Your task to perform on an android device: Search for Mexican restaurants on Maps Image 0: 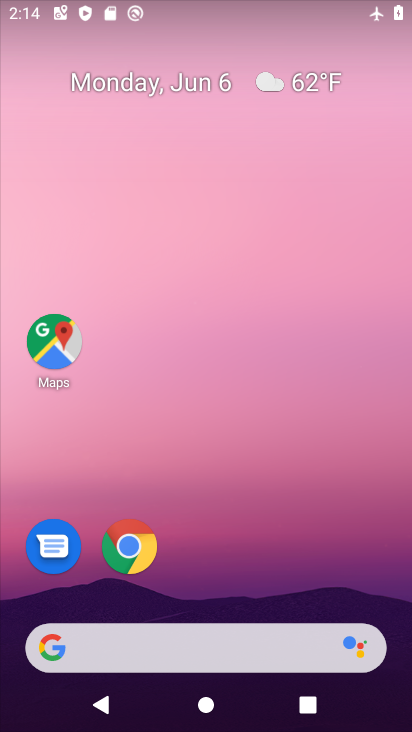
Step 0: drag from (276, 573) to (236, 209)
Your task to perform on an android device: Search for Mexican restaurants on Maps Image 1: 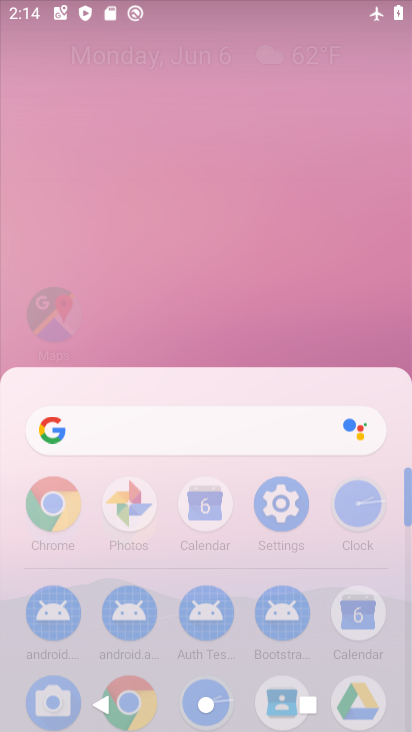
Step 1: click (235, 175)
Your task to perform on an android device: Search for Mexican restaurants on Maps Image 2: 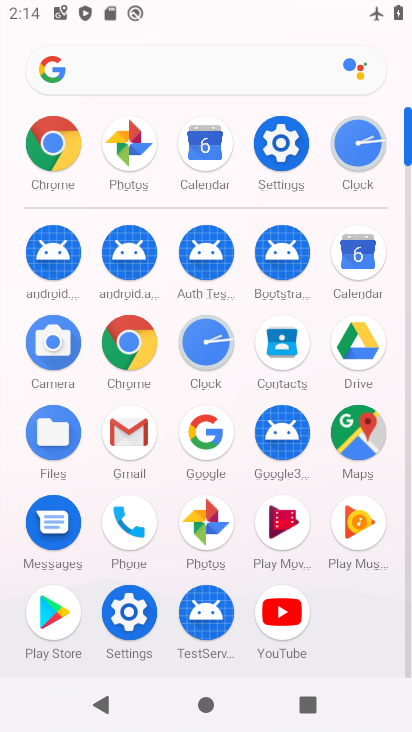
Step 2: click (349, 437)
Your task to perform on an android device: Search for Mexican restaurants on Maps Image 3: 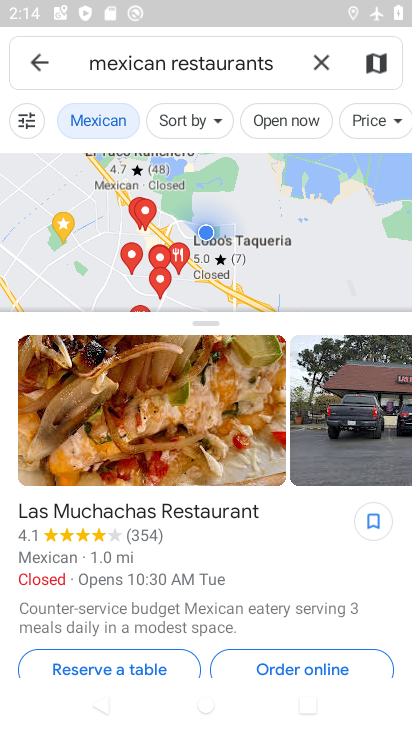
Step 3: task complete